Your task to perform on an android device: Go to calendar. Show me events next week Image 0: 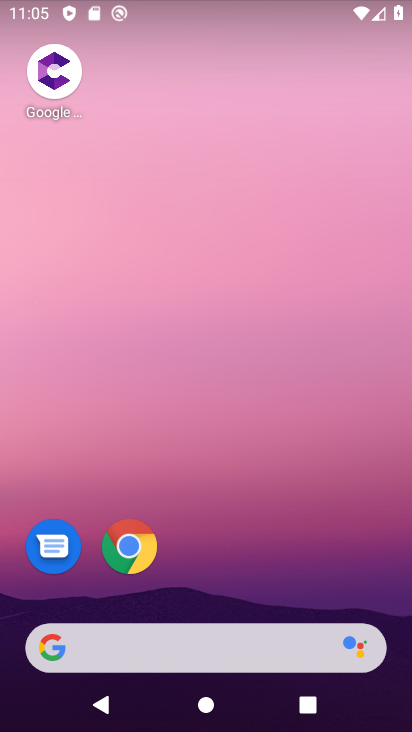
Step 0: drag from (179, 637) to (298, 163)
Your task to perform on an android device: Go to calendar. Show me events next week Image 1: 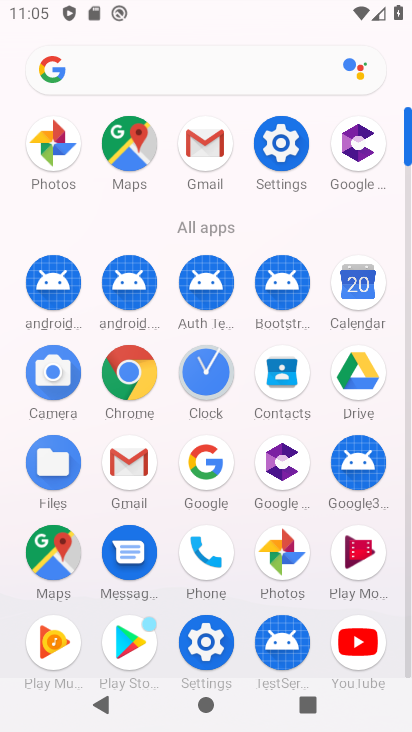
Step 1: click (352, 298)
Your task to perform on an android device: Go to calendar. Show me events next week Image 2: 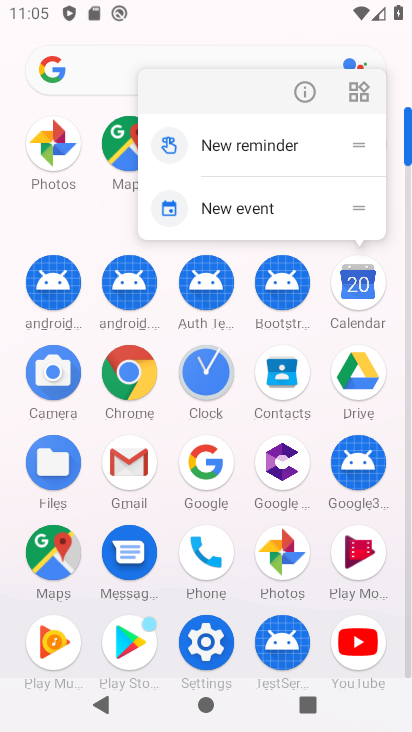
Step 2: click (368, 280)
Your task to perform on an android device: Go to calendar. Show me events next week Image 3: 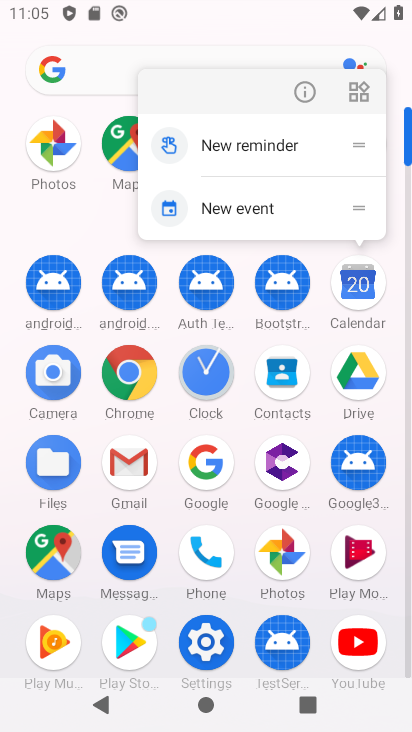
Step 3: click (358, 291)
Your task to perform on an android device: Go to calendar. Show me events next week Image 4: 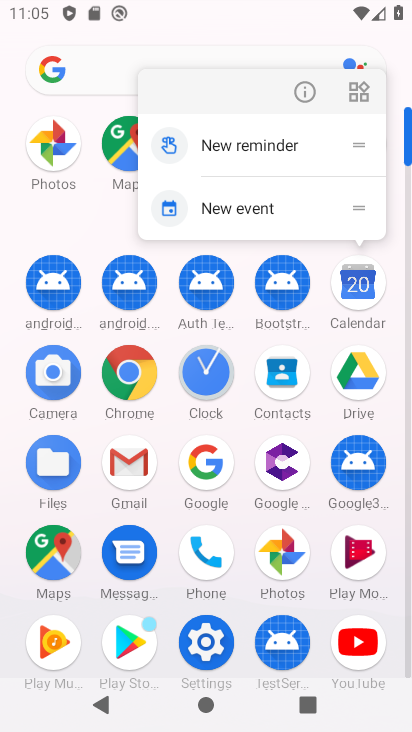
Step 4: click (357, 295)
Your task to perform on an android device: Go to calendar. Show me events next week Image 5: 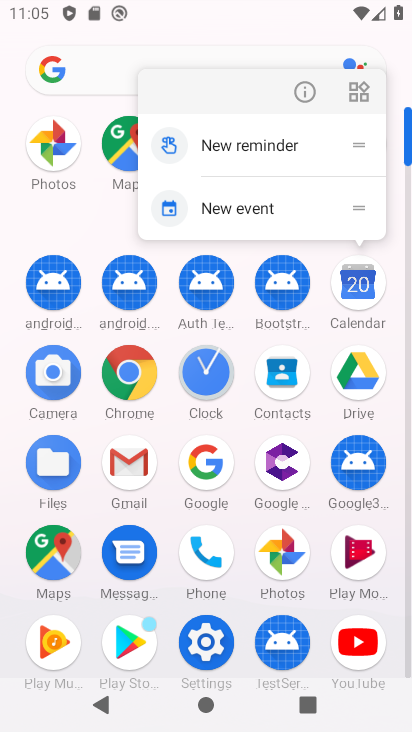
Step 5: click (356, 295)
Your task to perform on an android device: Go to calendar. Show me events next week Image 6: 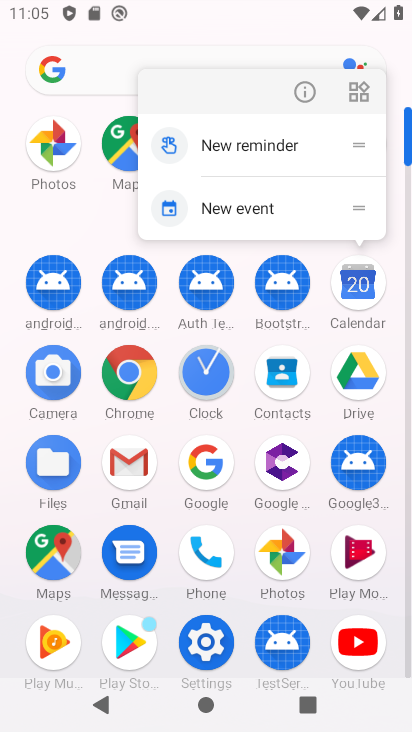
Step 6: click (355, 289)
Your task to perform on an android device: Go to calendar. Show me events next week Image 7: 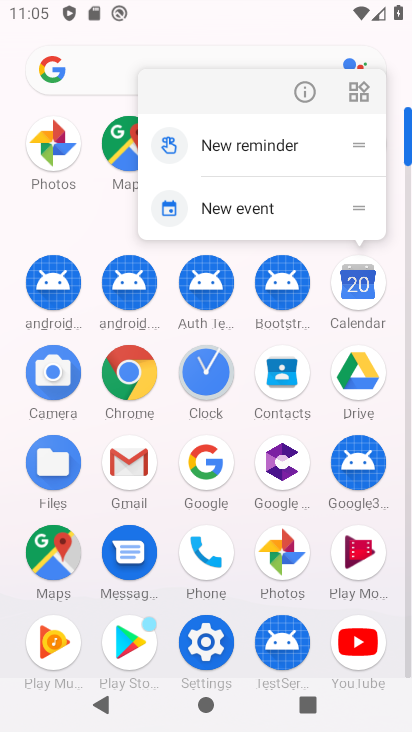
Step 7: click (361, 297)
Your task to perform on an android device: Go to calendar. Show me events next week Image 8: 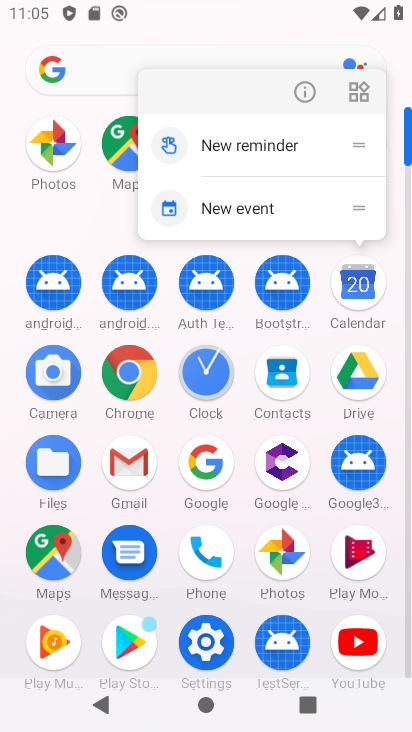
Step 8: click (361, 295)
Your task to perform on an android device: Go to calendar. Show me events next week Image 9: 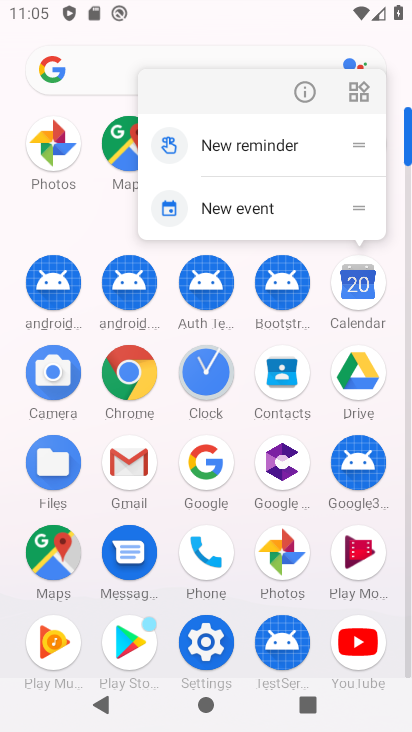
Step 9: click (357, 294)
Your task to perform on an android device: Go to calendar. Show me events next week Image 10: 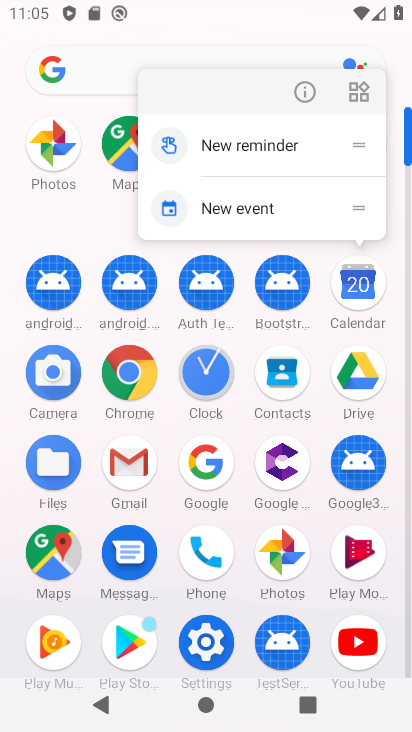
Step 10: click (357, 281)
Your task to perform on an android device: Go to calendar. Show me events next week Image 11: 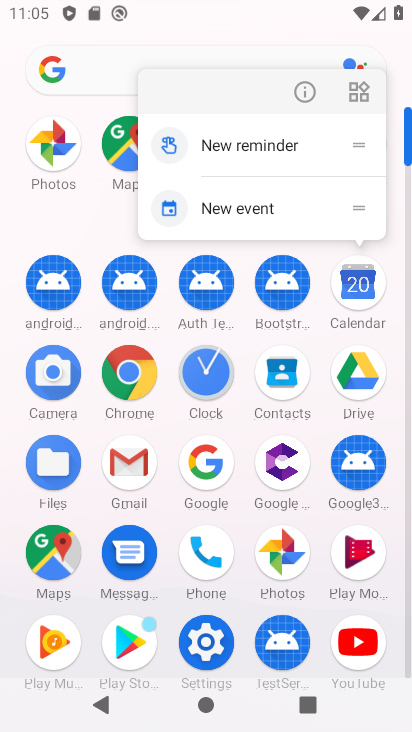
Step 11: click (358, 290)
Your task to perform on an android device: Go to calendar. Show me events next week Image 12: 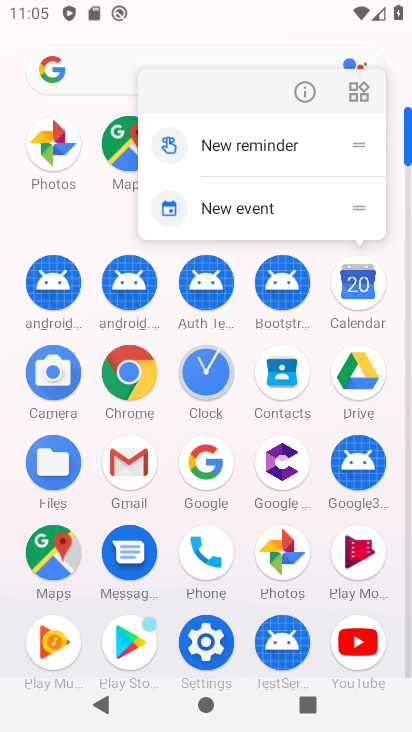
Step 12: click (354, 281)
Your task to perform on an android device: Go to calendar. Show me events next week Image 13: 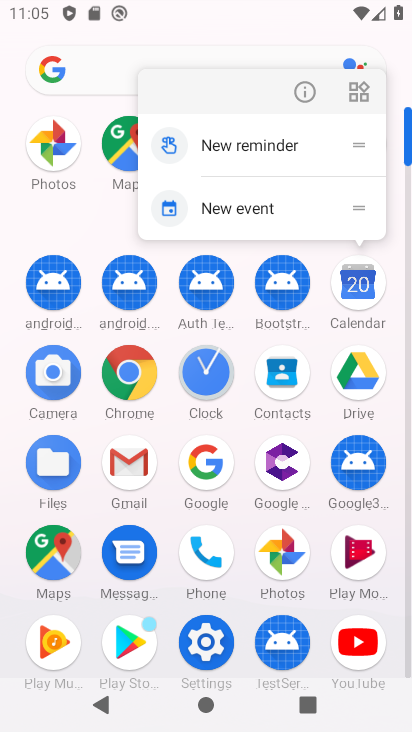
Step 13: click (357, 292)
Your task to perform on an android device: Go to calendar. Show me events next week Image 14: 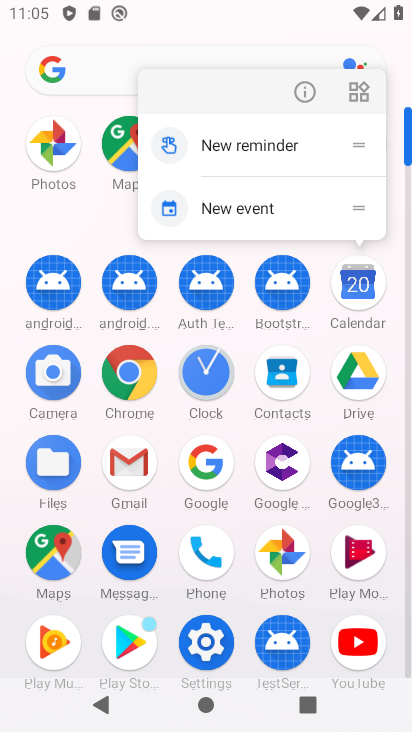
Step 14: click (362, 295)
Your task to perform on an android device: Go to calendar. Show me events next week Image 15: 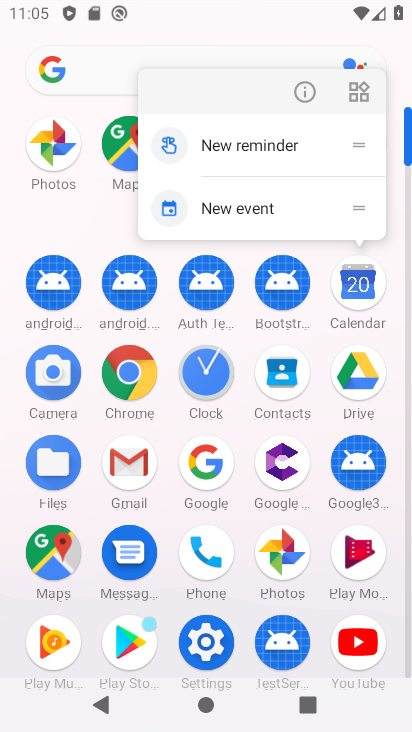
Step 15: click (357, 277)
Your task to perform on an android device: Go to calendar. Show me events next week Image 16: 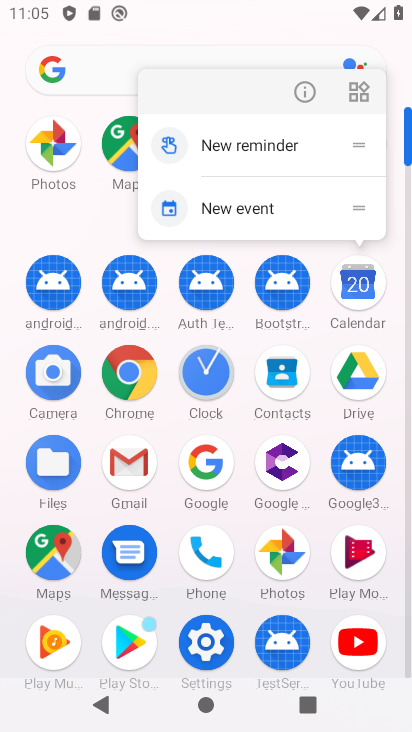
Step 16: click (355, 294)
Your task to perform on an android device: Go to calendar. Show me events next week Image 17: 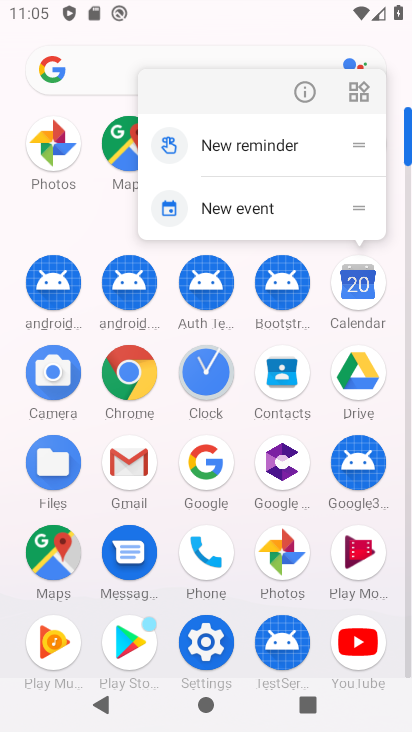
Step 17: drag from (184, 531) to (348, 248)
Your task to perform on an android device: Go to calendar. Show me events next week Image 18: 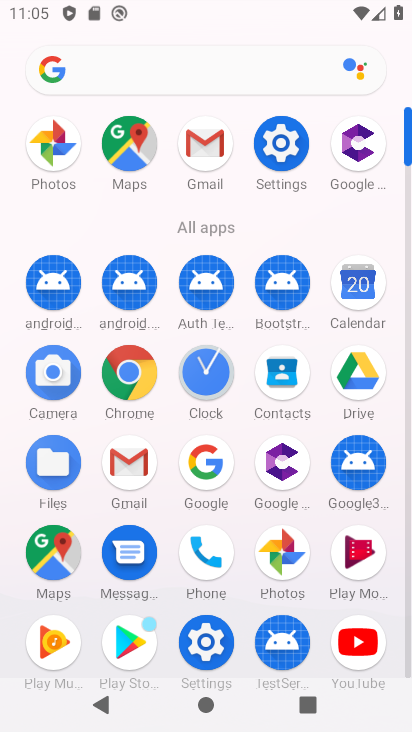
Step 18: click (357, 285)
Your task to perform on an android device: Go to calendar. Show me events next week Image 19: 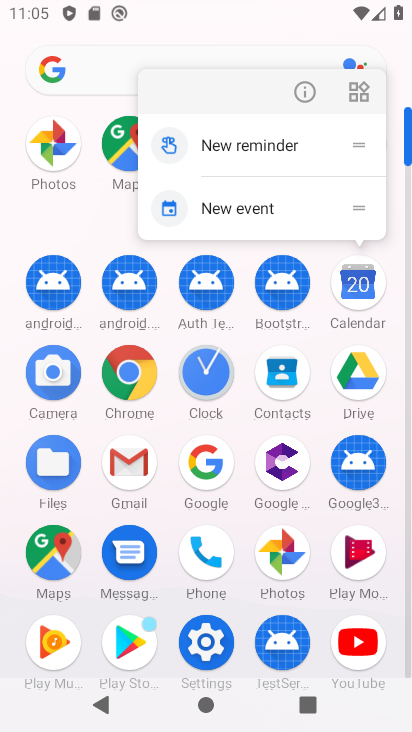
Step 19: click (357, 285)
Your task to perform on an android device: Go to calendar. Show me events next week Image 20: 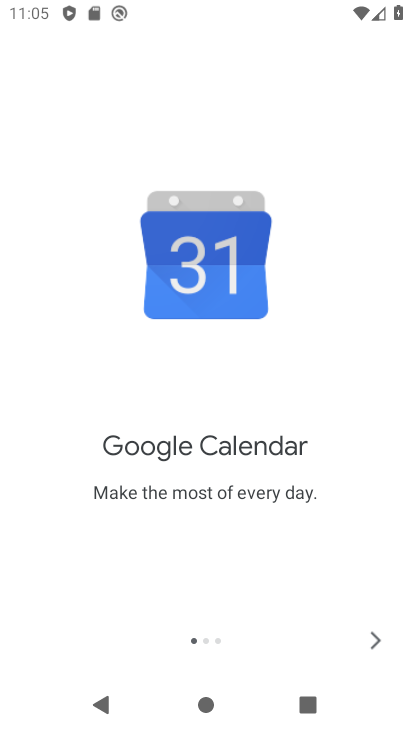
Step 20: click (382, 642)
Your task to perform on an android device: Go to calendar. Show me events next week Image 21: 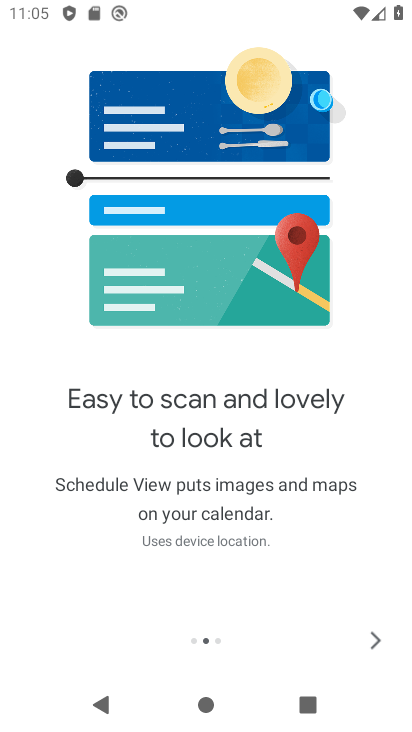
Step 21: click (376, 638)
Your task to perform on an android device: Go to calendar. Show me events next week Image 22: 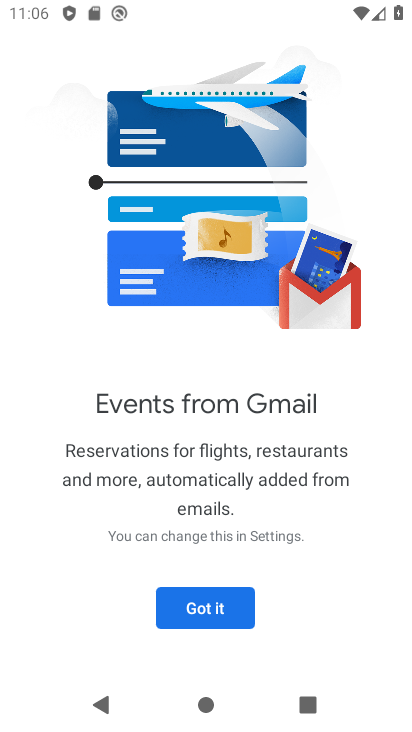
Step 22: click (226, 606)
Your task to perform on an android device: Go to calendar. Show me events next week Image 23: 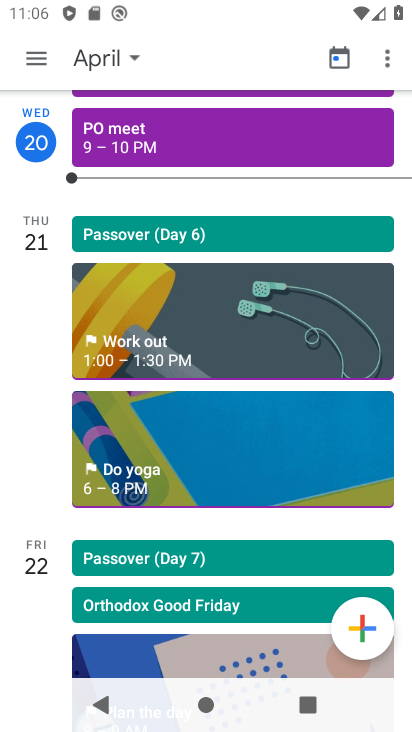
Step 23: click (105, 56)
Your task to perform on an android device: Go to calendar. Show me events next week Image 24: 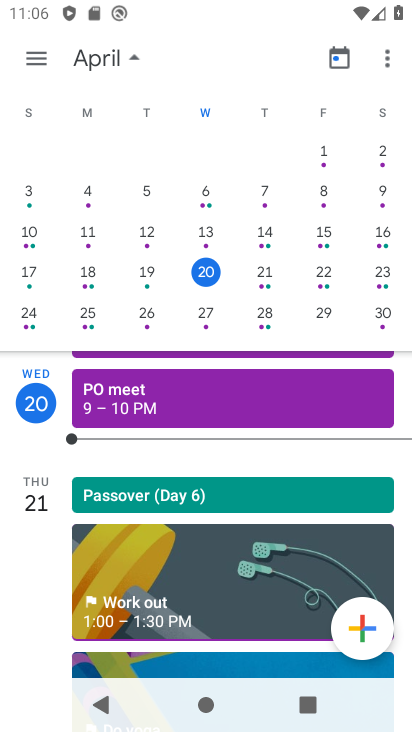
Step 24: click (34, 313)
Your task to perform on an android device: Go to calendar. Show me events next week Image 25: 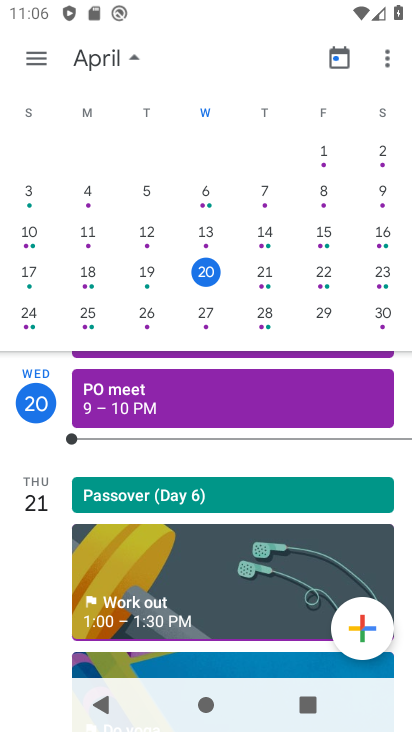
Step 25: click (31, 311)
Your task to perform on an android device: Go to calendar. Show me events next week Image 26: 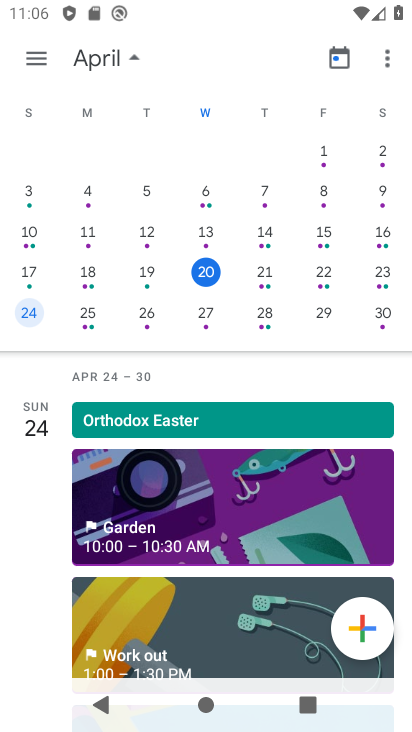
Step 26: click (48, 60)
Your task to perform on an android device: Go to calendar. Show me events next week Image 27: 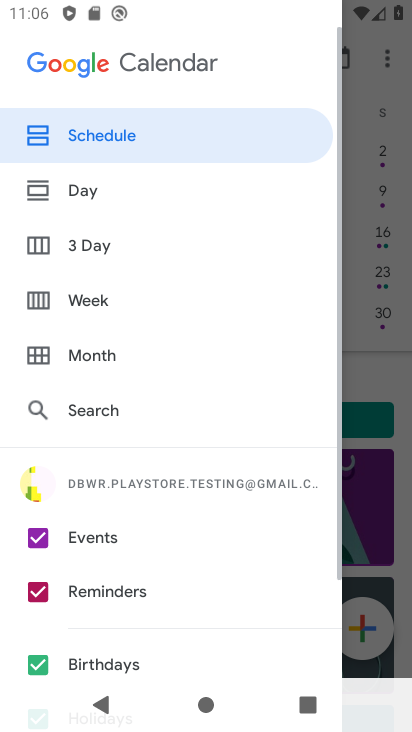
Step 27: click (98, 303)
Your task to perform on an android device: Go to calendar. Show me events next week Image 28: 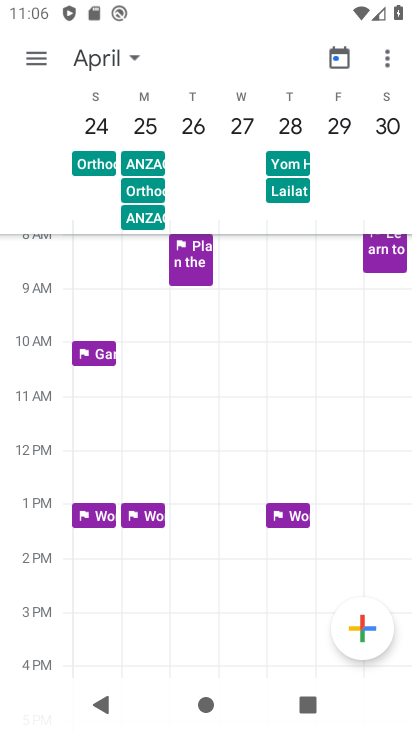
Step 28: click (32, 60)
Your task to perform on an android device: Go to calendar. Show me events next week Image 29: 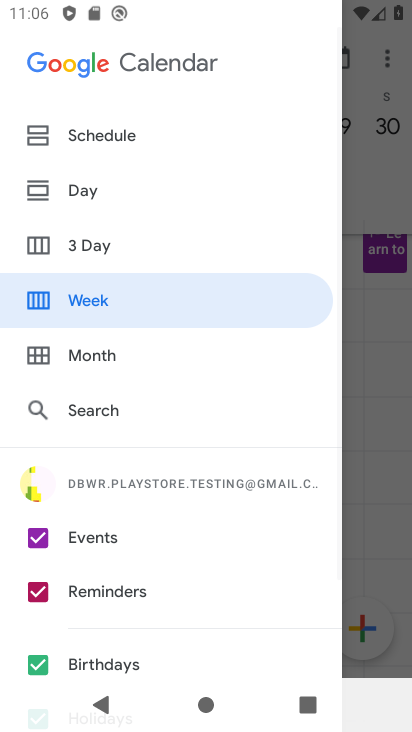
Step 29: click (116, 133)
Your task to perform on an android device: Go to calendar. Show me events next week Image 30: 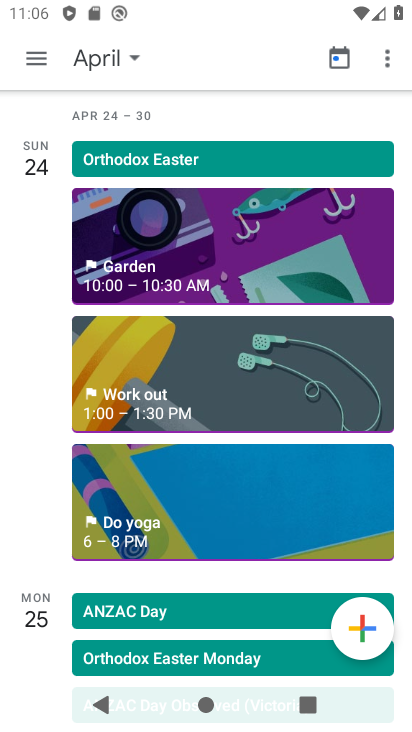
Step 30: click (175, 235)
Your task to perform on an android device: Go to calendar. Show me events next week Image 31: 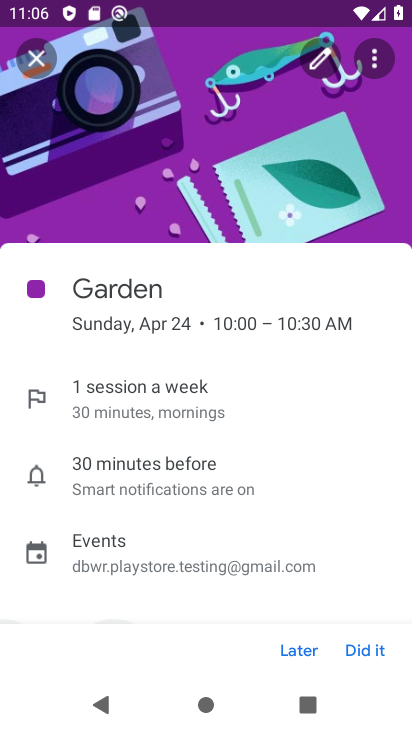
Step 31: task complete